Your task to perform on an android device: open wifi settings Image 0: 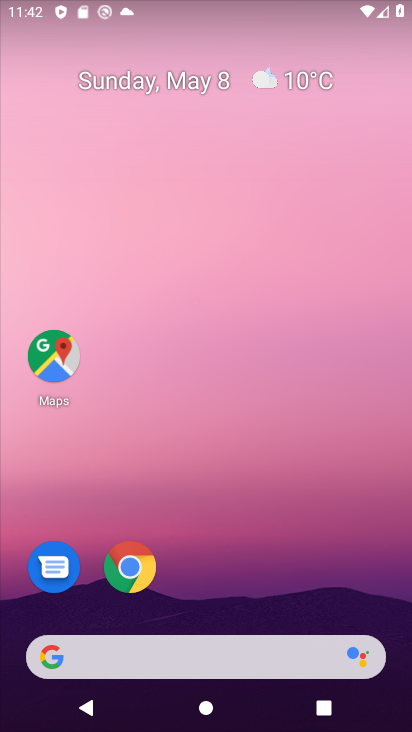
Step 0: drag from (234, 450) to (279, 120)
Your task to perform on an android device: open wifi settings Image 1: 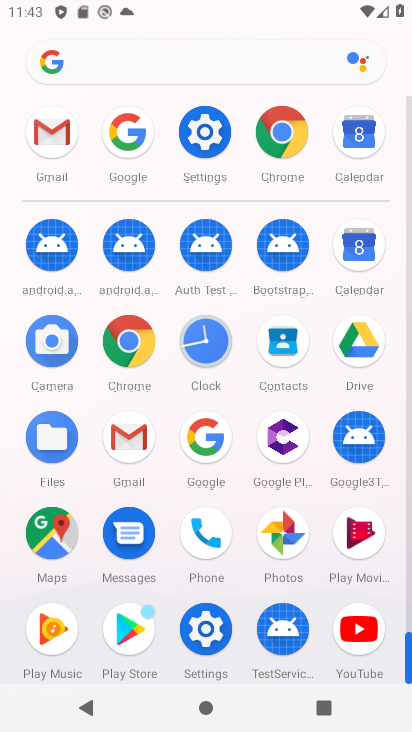
Step 1: click (211, 162)
Your task to perform on an android device: open wifi settings Image 2: 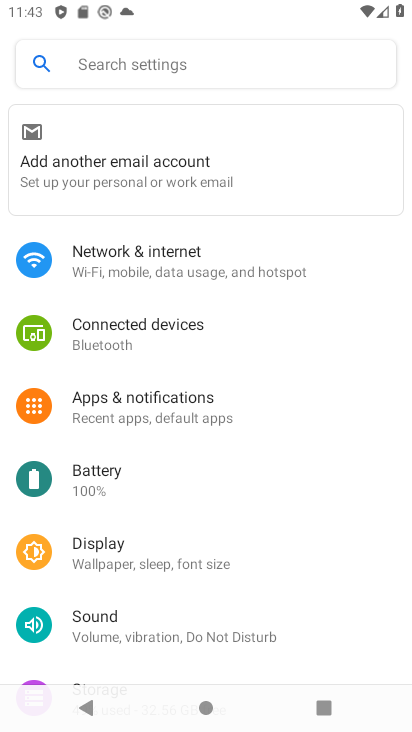
Step 2: click (113, 268)
Your task to perform on an android device: open wifi settings Image 3: 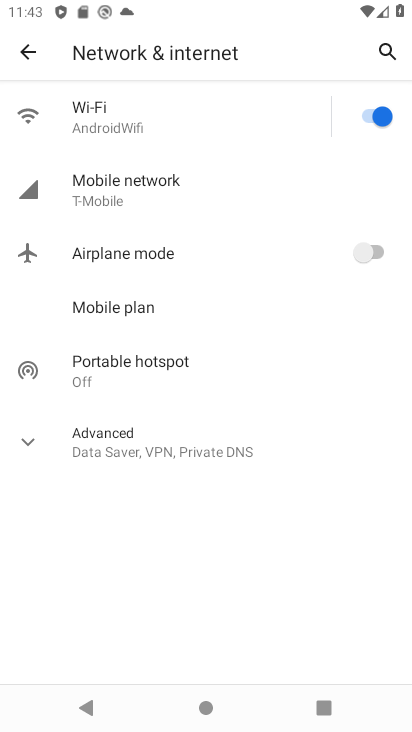
Step 3: click (157, 108)
Your task to perform on an android device: open wifi settings Image 4: 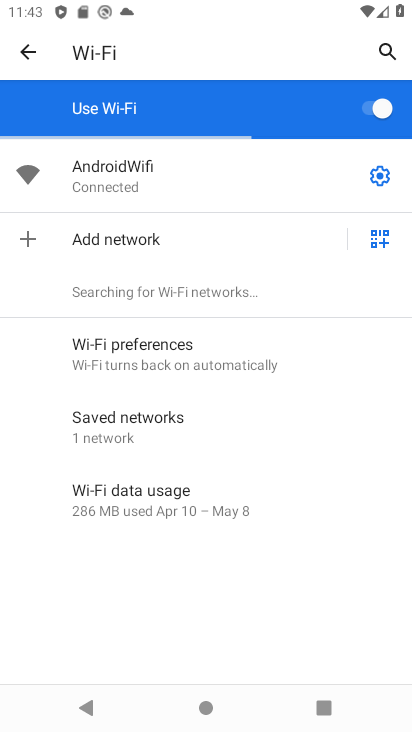
Step 4: task complete